Your task to perform on an android device: toggle sleep mode Image 0: 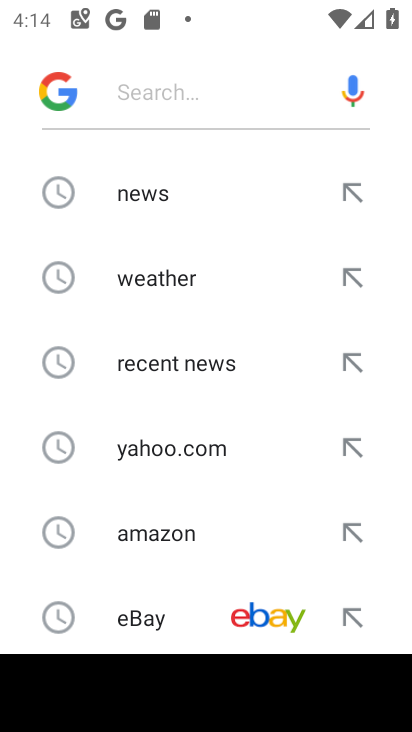
Step 0: press home button
Your task to perform on an android device: toggle sleep mode Image 1: 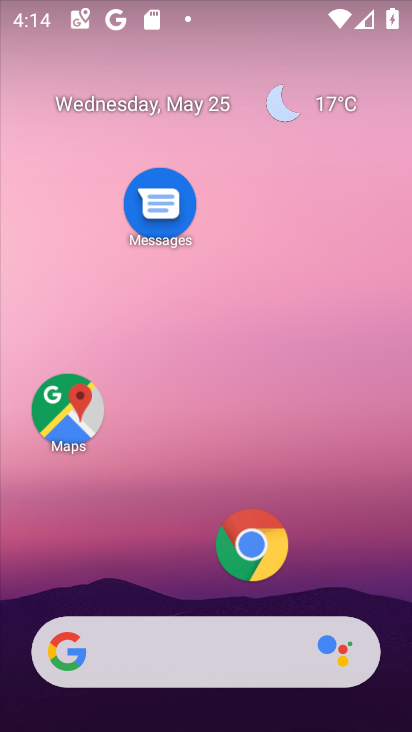
Step 1: drag from (152, 569) to (184, 26)
Your task to perform on an android device: toggle sleep mode Image 2: 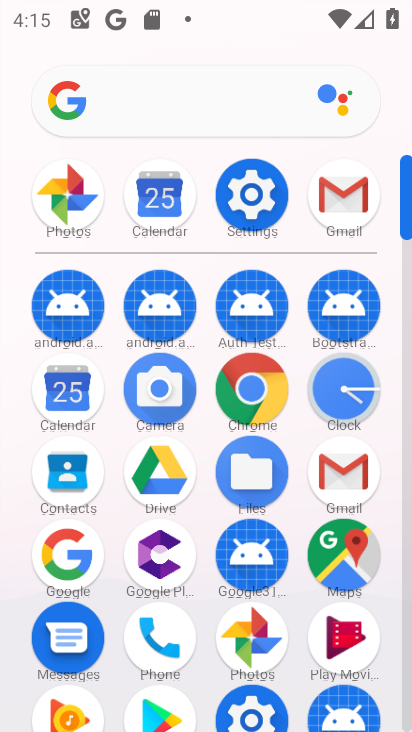
Step 2: click (244, 205)
Your task to perform on an android device: toggle sleep mode Image 3: 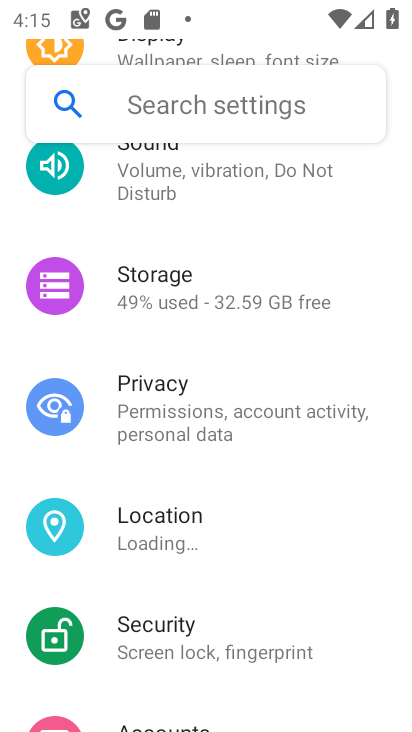
Step 3: drag from (221, 206) to (217, 523)
Your task to perform on an android device: toggle sleep mode Image 4: 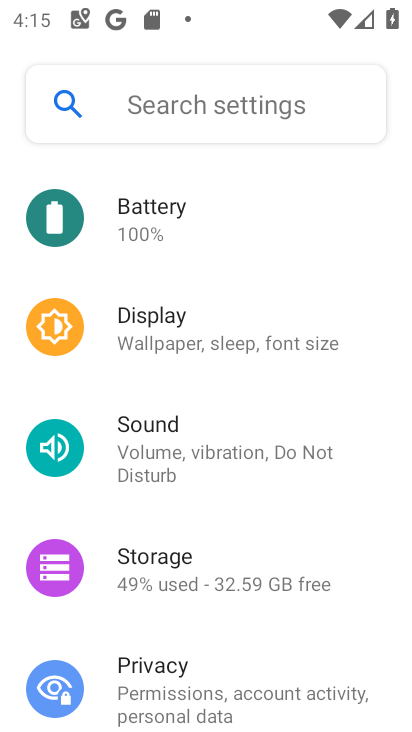
Step 4: click (248, 354)
Your task to perform on an android device: toggle sleep mode Image 5: 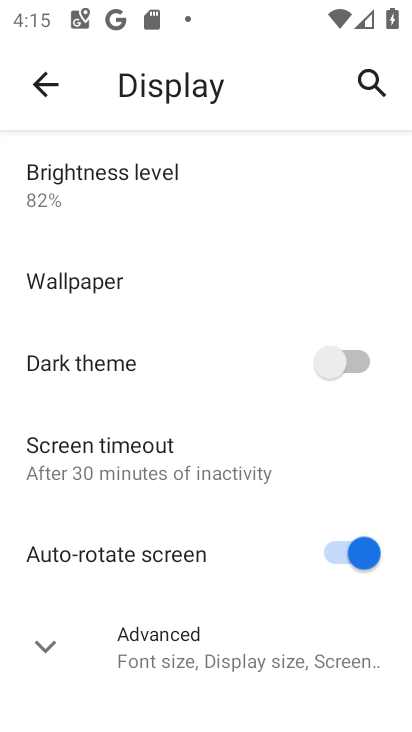
Step 5: click (205, 667)
Your task to perform on an android device: toggle sleep mode Image 6: 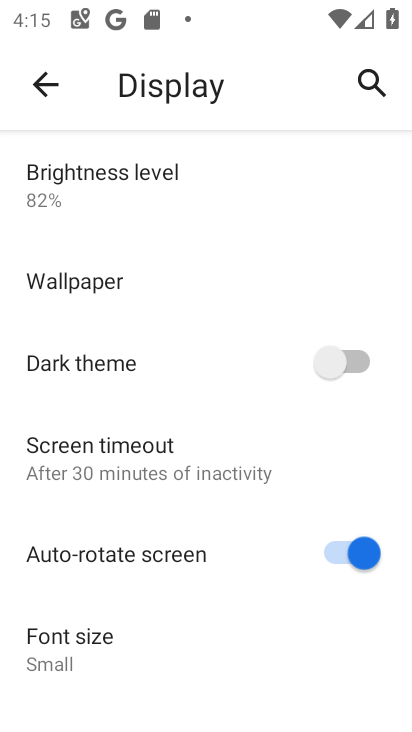
Step 6: task complete